Your task to perform on an android device: turn smart compose on in the gmail app Image 0: 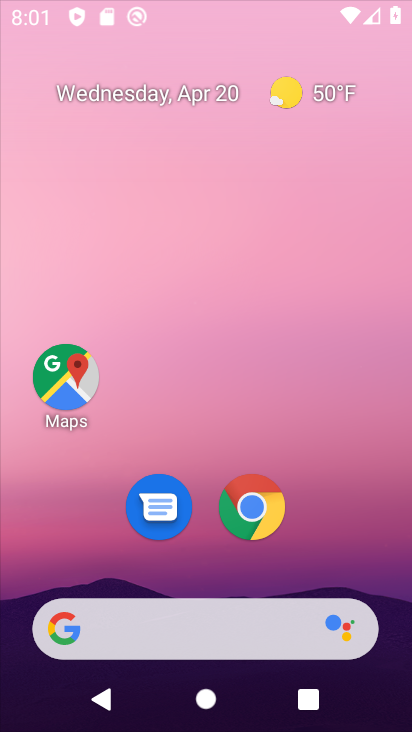
Step 0: drag from (140, 7) to (205, 403)
Your task to perform on an android device: turn smart compose on in the gmail app Image 1: 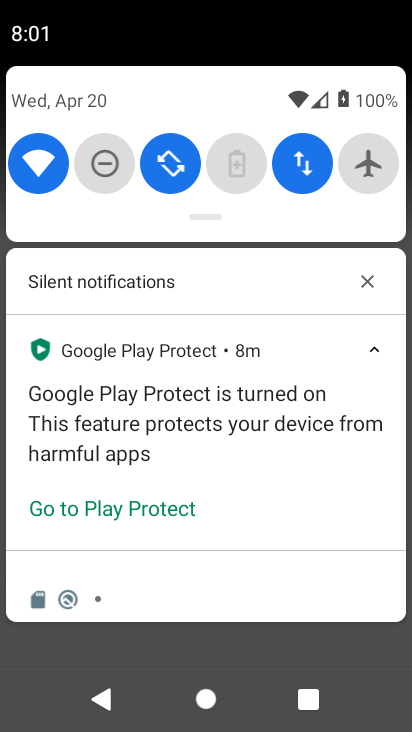
Step 1: task complete